Your task to perform on an android device: Search for vegetarian restaurants on Maps Image 0: 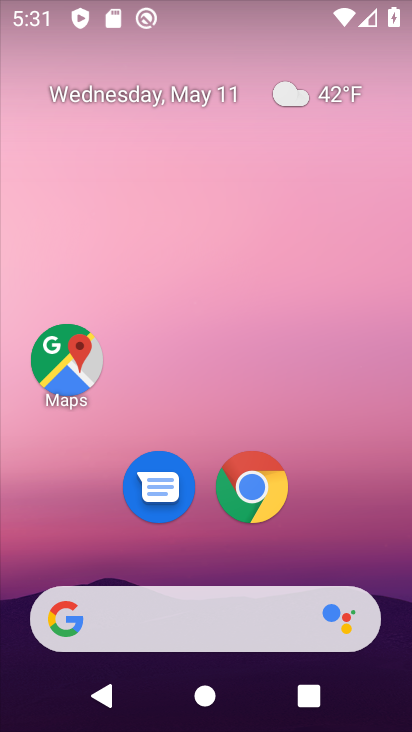
Step 0: click (63, 356)
Your task to perform on an android device: Search for vegetarian restaurants on Maps Image 1: 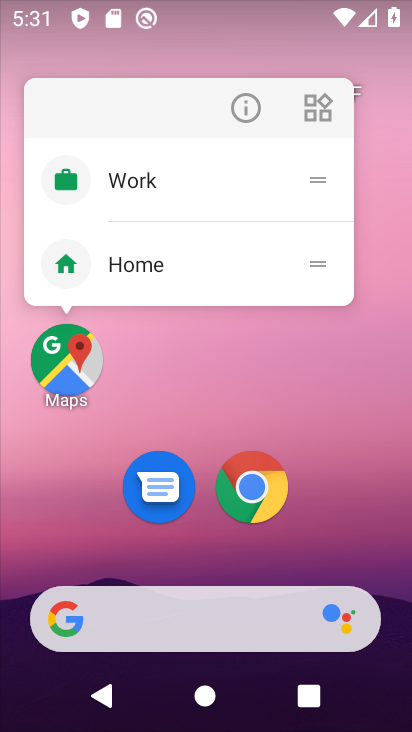
Step 1: click (76, 369)
Your task to perform on an android device: Search for vegetarian restaurants on Maps Image 2: 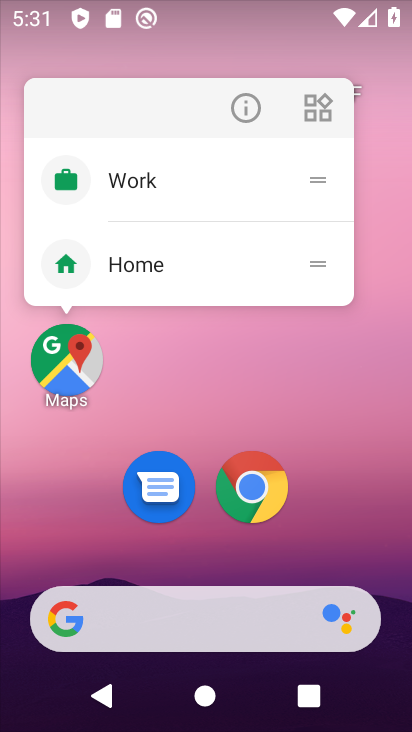
Step 2: click (91, 355)
Your task to perform on an android device: Search for vegetarian restaurants on Maps Image 3: 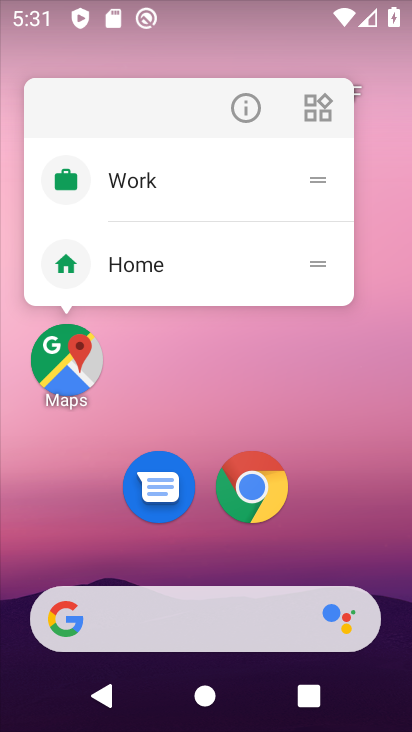
Step 3: click (79, 339)
Your task to perform on an android device: Search for vegetarian restaurants on Maps Image 4: 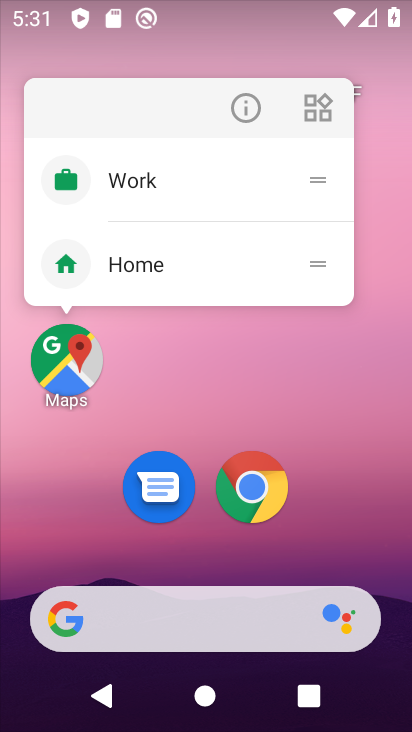
Step 4: click (79, 345)
Your task to perform on an android device: Search for vegetarian restaurants on Maps Image 5: 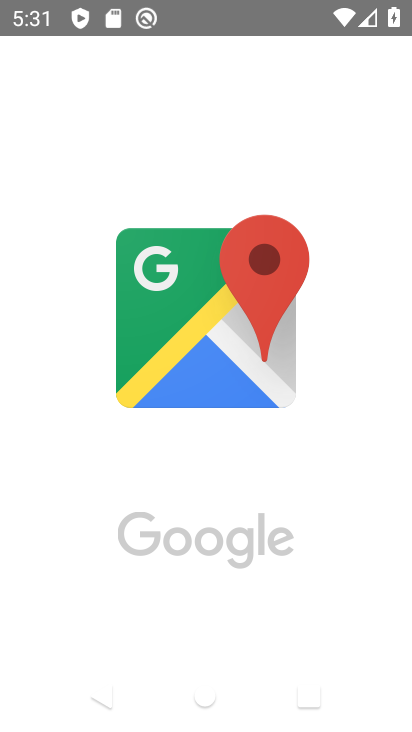
Step 5: click (79, 345)
Your task to perform on an android device: Search for vegetarian restaurants on Maps Image 6: 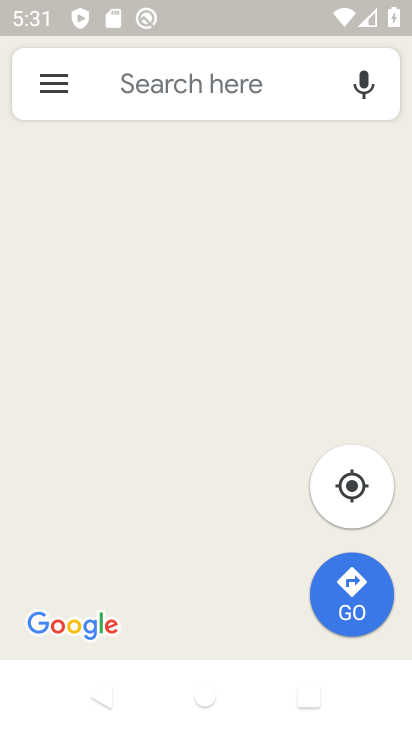
Step 6: click (220, 82)
Your task to perform on an android device: Search for vegetarian restaurants on Maps Image 7: 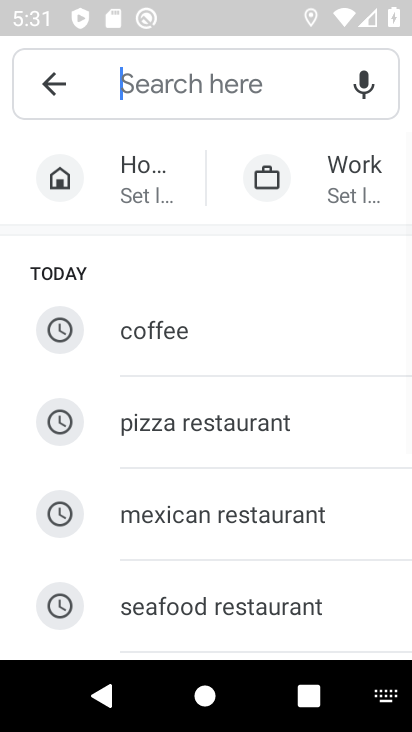
Step 7: type "vegetarian restaurants"
Your task to perform on an android device: Search for vegetarian restaurants on Maps Image 8: 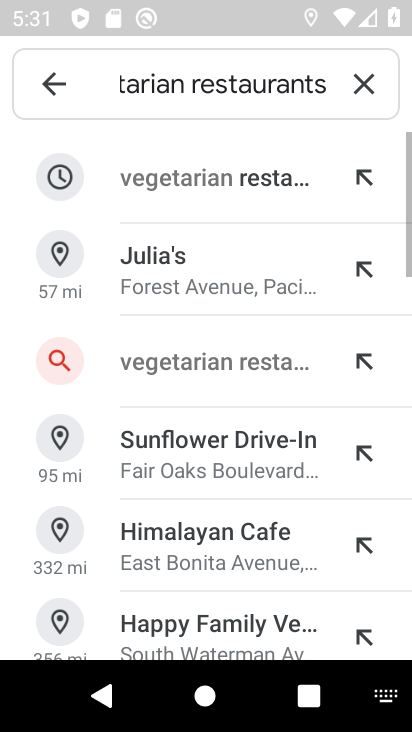
Step 8: click (181, 170)
Your task to perform on an android device: Search for vegetarian restaurants on Maps Image 9: 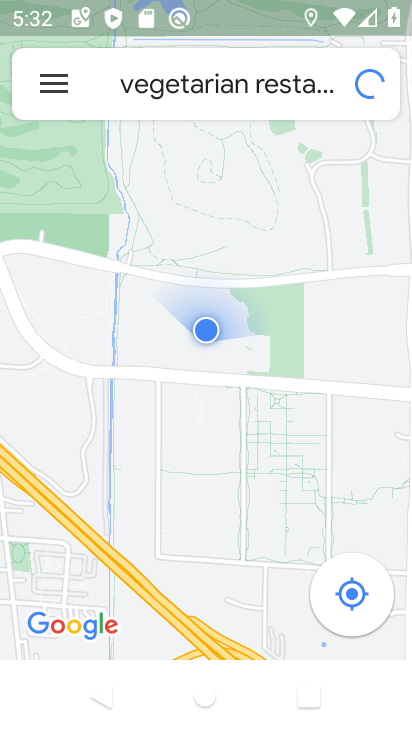
Step 9: task complete